Your task to perform on an android device: check storage Image 0: 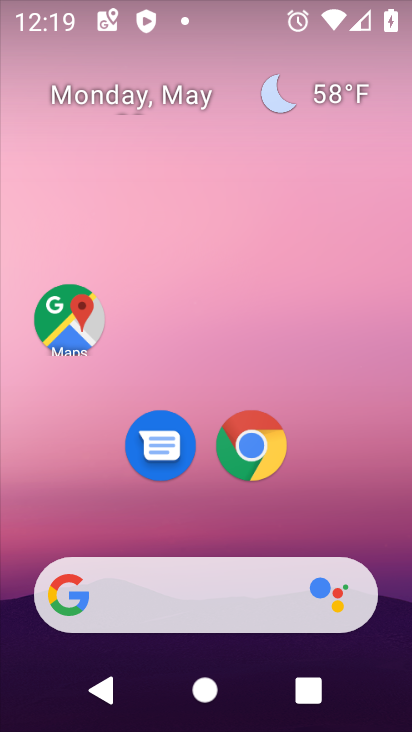
Step 0: press home button
Your task to perform on an android device: check storage Image 1: 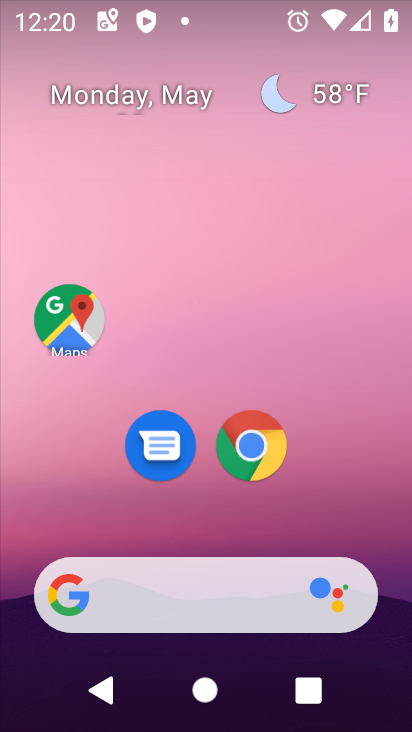
Step 1: drag from (205, 523) to (230, 67)
Your task to perform on an android device: check storage Image 2: 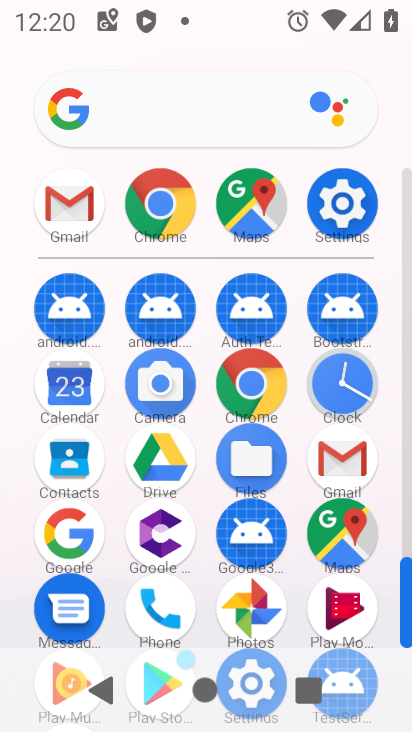
Step 2: click (337, 196)
Your task to perform on an android device: check storage Image 3: 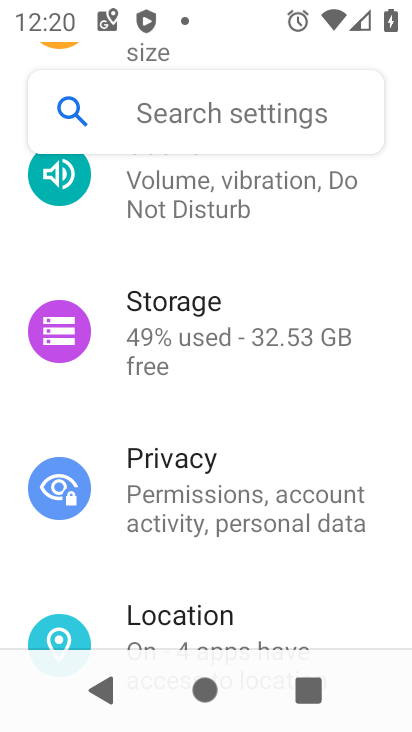
Step 3: click (230, 308)
Your task to perform on an android device: check storage Image 4: 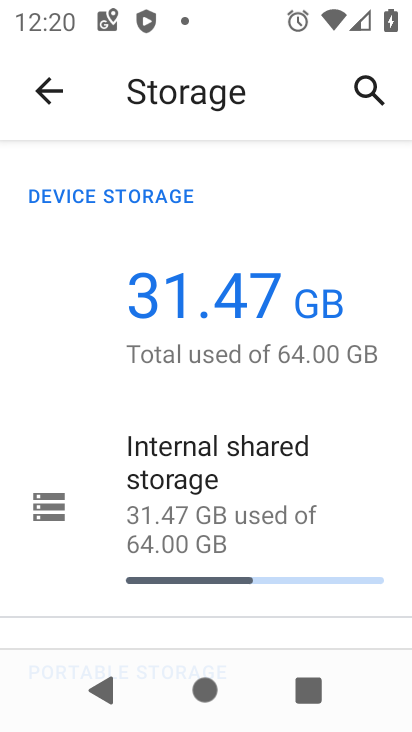
Step 4: task complete